Your task to perform on an android device: Is it going to rain tomorrow? Image 0: 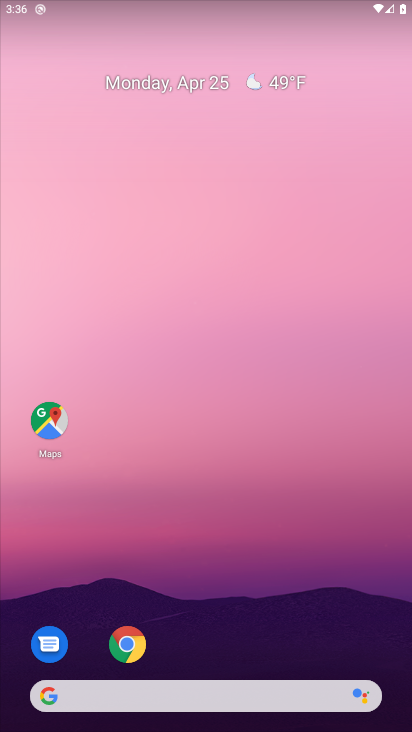
Step 0: drag from (251, 627) to (258, 2)
Your task to perform on an android device: Is it going to rain tomorrow? Image 1: 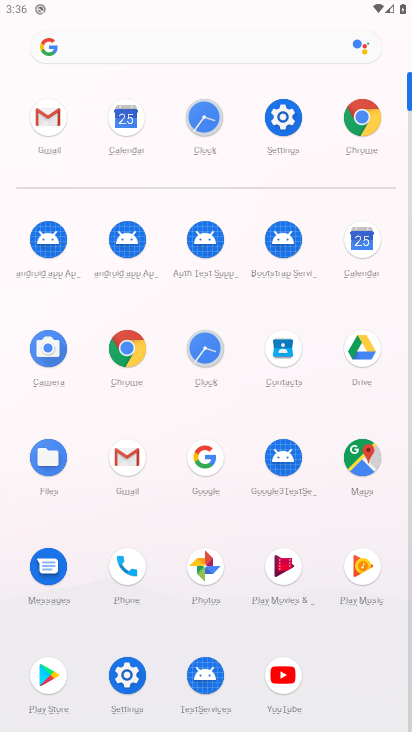
Step 1: click (143, 39)
Your task to perform on an android device: Is it going to rain tomorrow? Image 2: 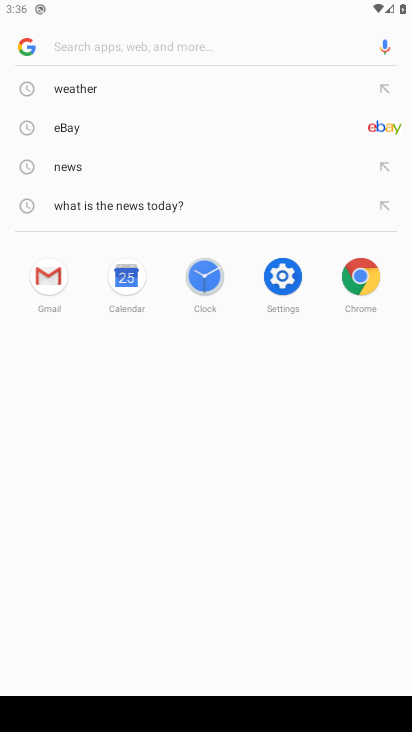
Step 2: click (88, 85)
Your task to perform on an android device: Is it going to rain tomorrow? Image 3: 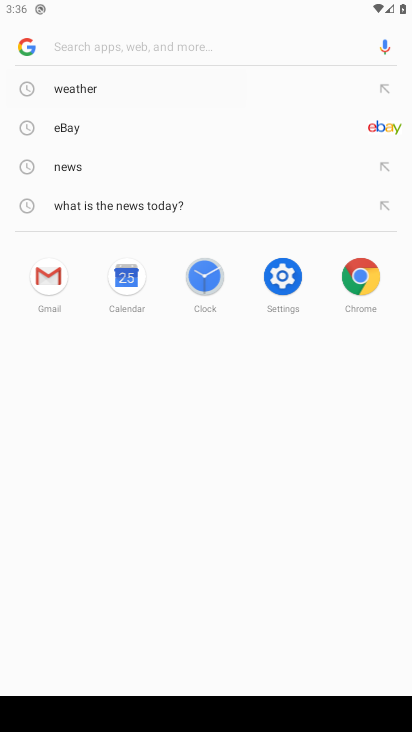
Step 3: task complete